Your task to perform on an android device: open chrome and create a bookmark for the current page Image 0: 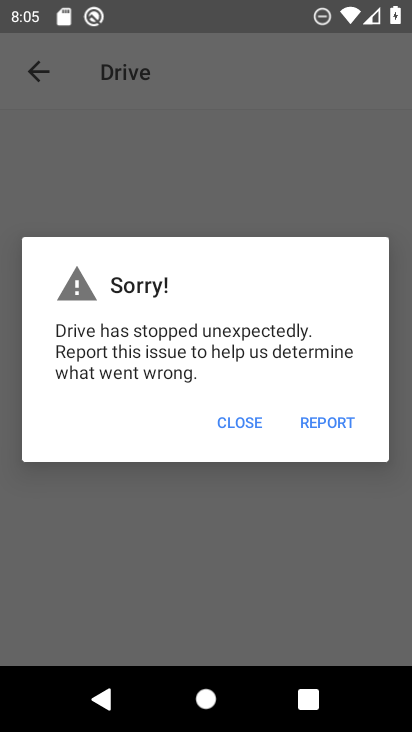
Step 0: press home button
Your task to perform on an android device: open chrome and create a bookmark for the current page Image 1: 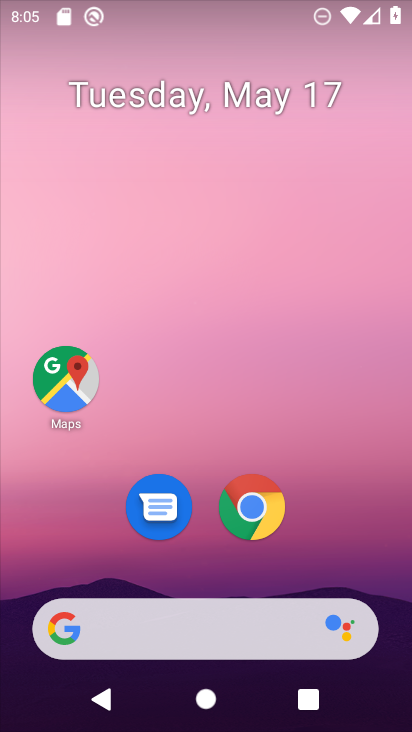
Step 1: click (256, 510)
Your task to perform on an android device: open chrome and create a bookmark for the current page Image 2: 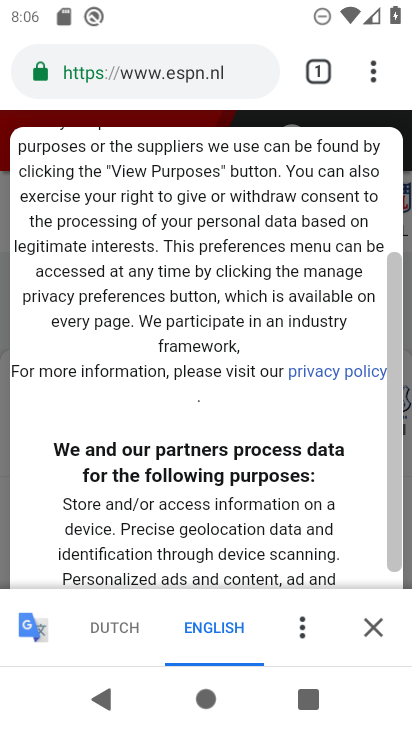
Step 2: click (377, 76)
Your task to perform on an android device: open chrome and create a bookmark for the current page Image 3: 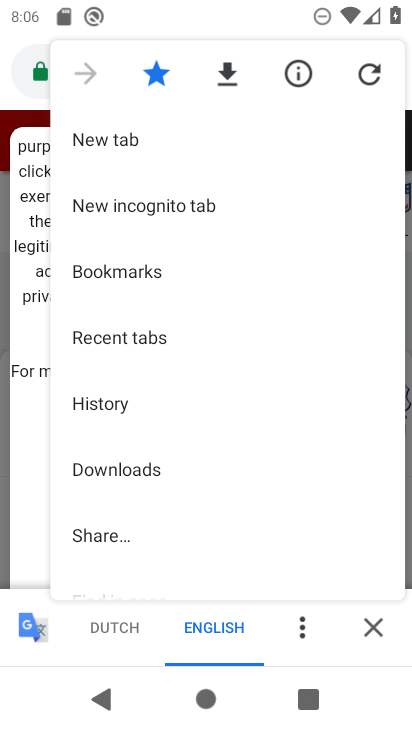
Step 3: task complete